Your task to perform on an android device: Open Chrome and go to settings Image 0: 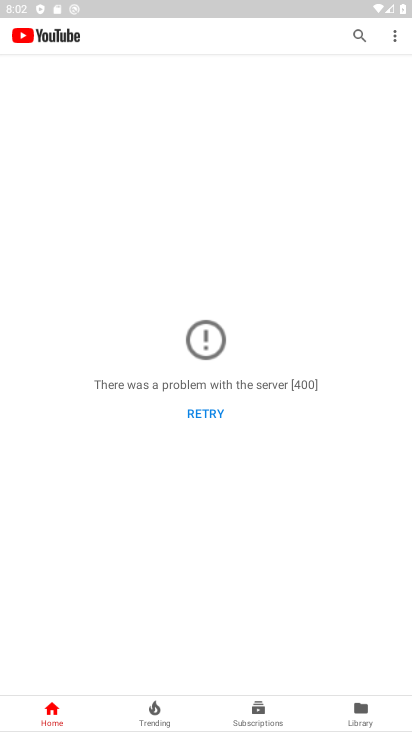
Step 0: press back button
Your task to perform on an android device: Open Chrome and go to settings Image 1: 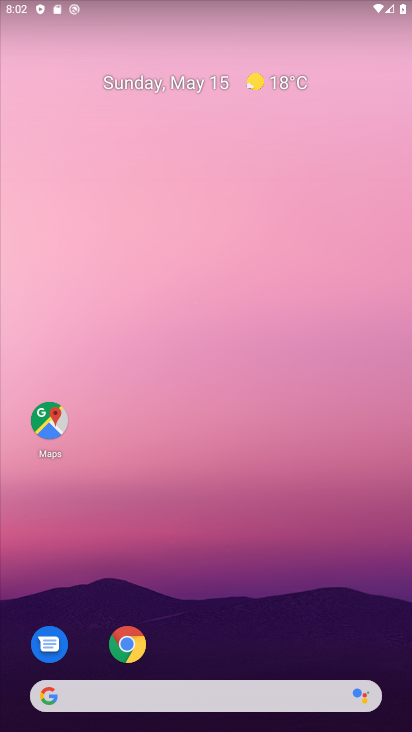
Step 1: click (139, 657)
Your task to perform on an android device: Open Chrome and go to settings Image 2: 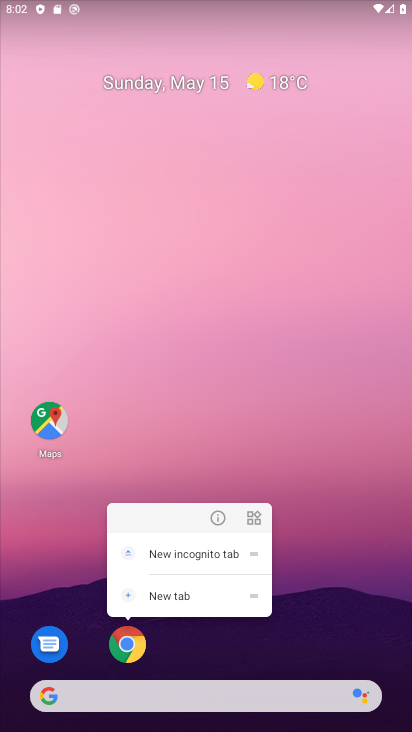
Step 2: click (120, 651)
Your task to perform on an android device: Open Chrome and go to settings Image 3: 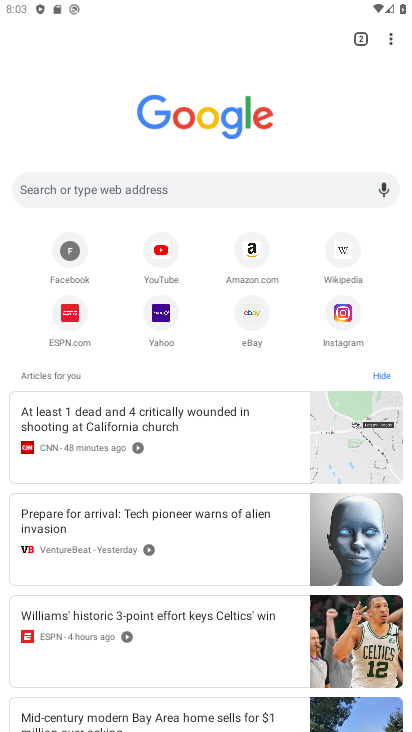
Step 3: task complete